Your task to perform on an android device: Open location settings Image 0: 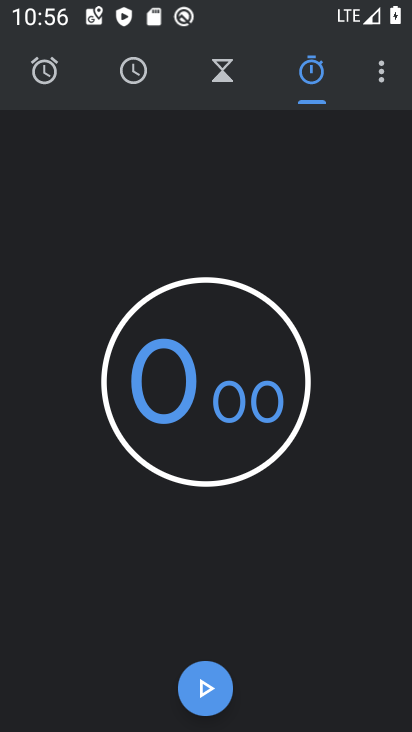
Step 0: press home button
Your task to perform on an android device: Open location settings Image 1: 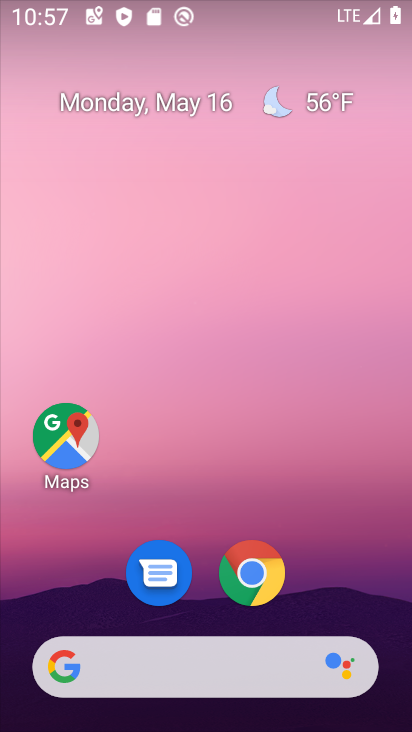
Step 1: drag from (273, 716) to (191, 25)
Your task to perform on an android device: Open location settings Image 2: 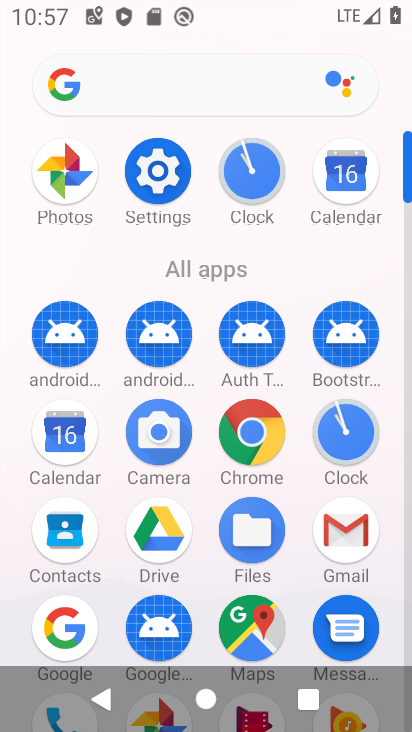
Step 2: click (156, 154)
Your task to perform on an android device: Open location settings Image 3: 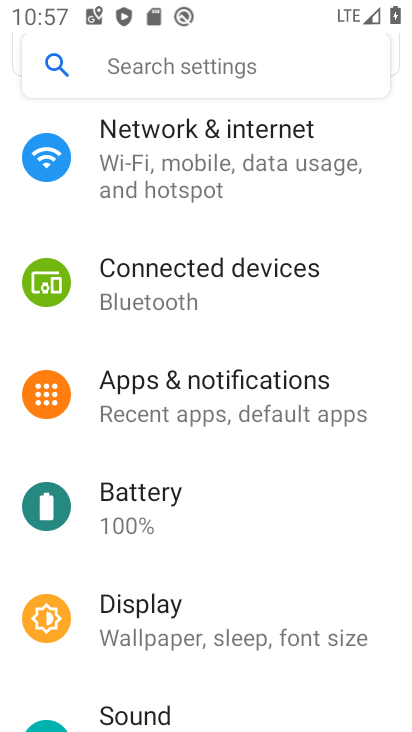
Step 3: drag from (217, 617) to (227, 192)
Your task to perform on an android device: Open location settings Image 4: 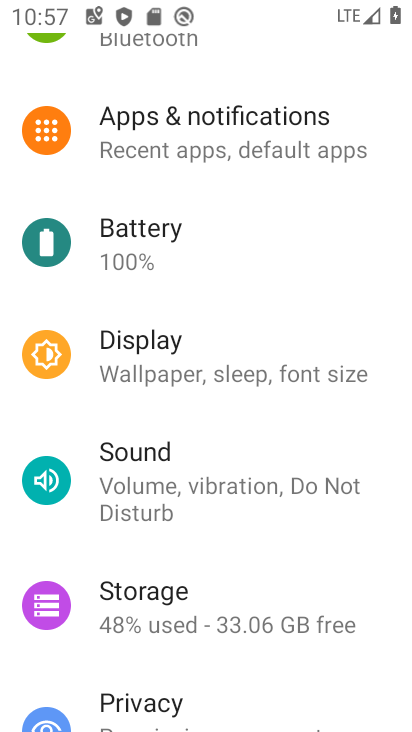
Step 4: drag from (233, 669) to (249, 176)
Your task to perform on an android device: Open location settings Image 5: 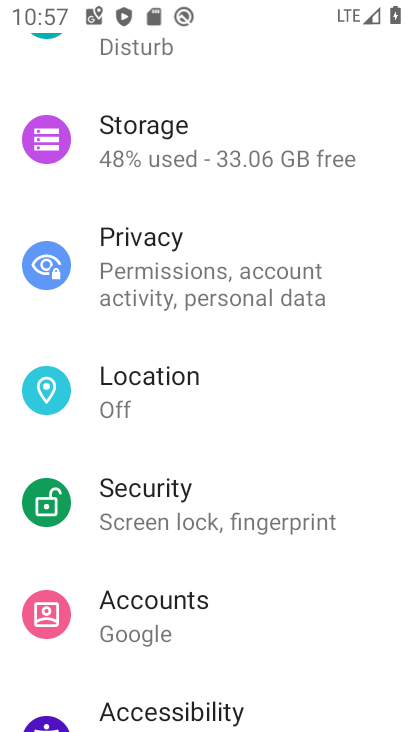
Step 5: click (182, 353)
Your task to perform on an android device: Open location settings Image 6: 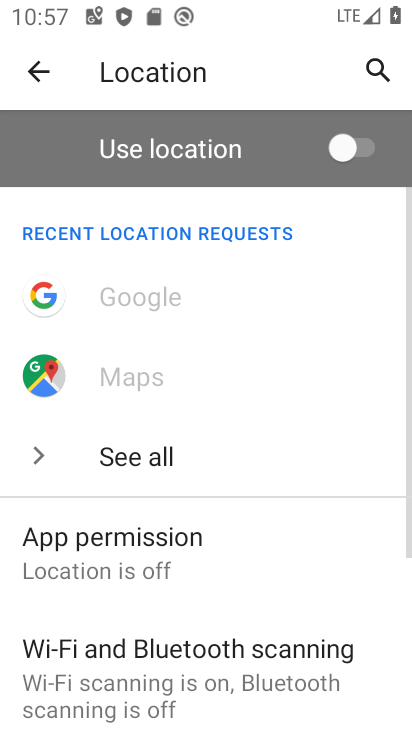
Step 6: task complete